Your task to perform on an android device: Open the map Image 0: 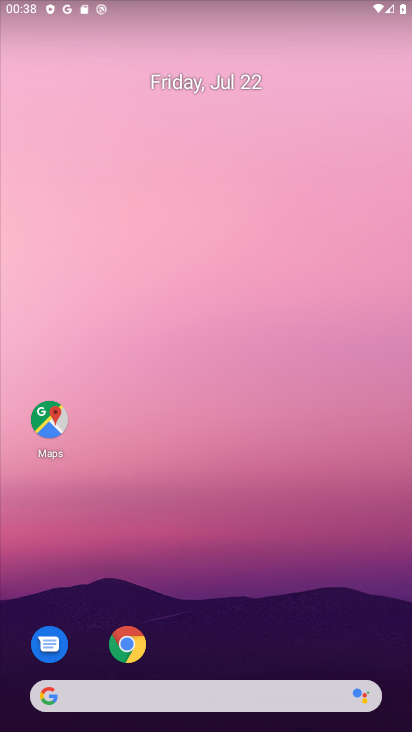
Step 0: click (51, 440)
Your task to perform on an android device: Open the map Image 1: 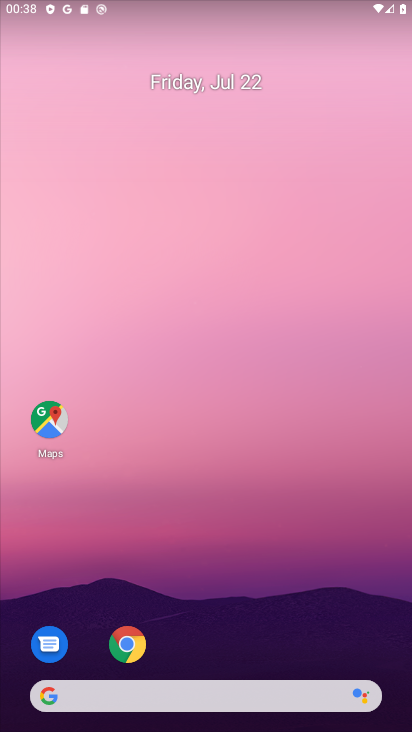
Step 1: click (51, 440)
Your task to perform on an android device: Open the map Image 2: 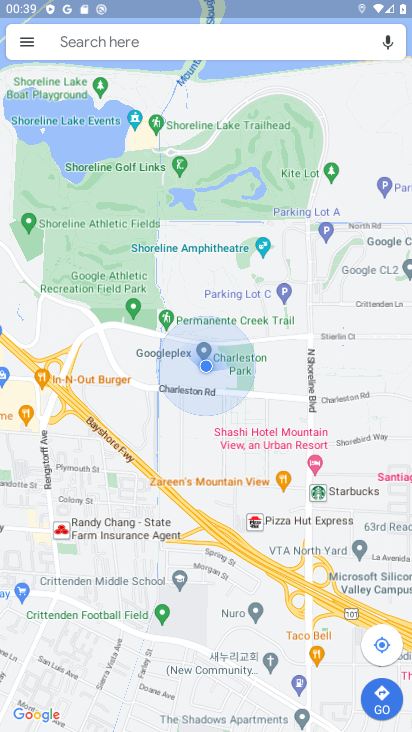
Step 2: task complete